Your task to perform on an android device: Go to network settings Image 0: 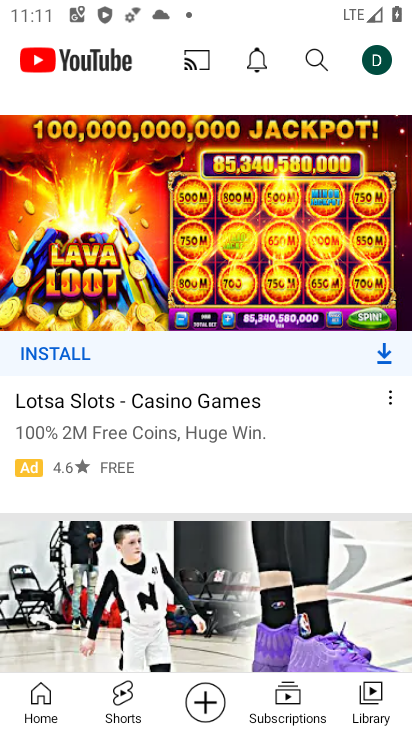
Step 0: press home button
Your task to perform on an android device: Go to network settings Image 1: 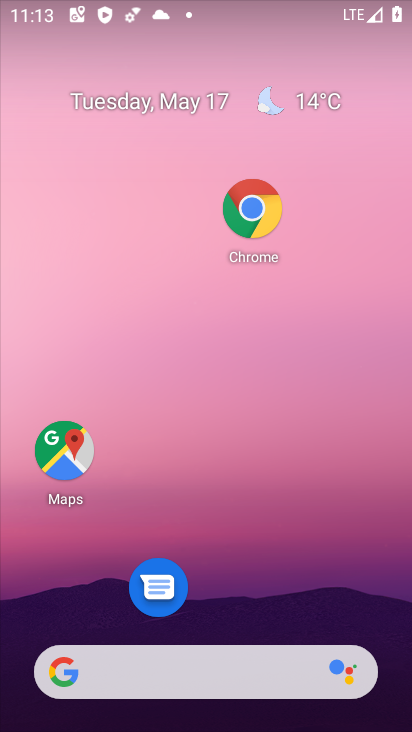
Step 1: drag from (276, 580) to (291, 80)
Your task to perform on an android device: Go to network settings Image 2: 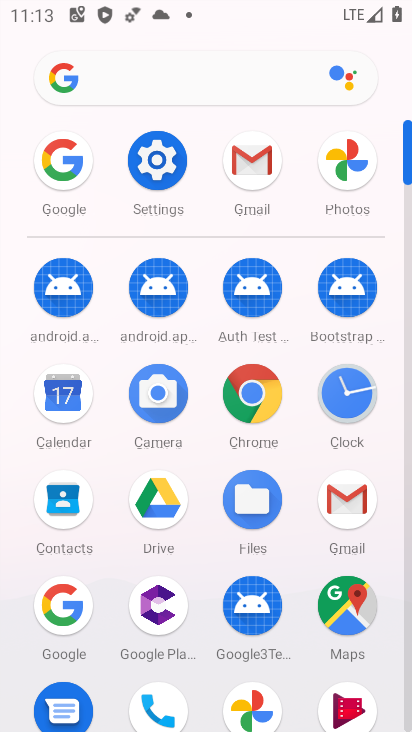
Step 2: click (154, 142)
Your task to perform on an android device: Go to network settings Image 3: 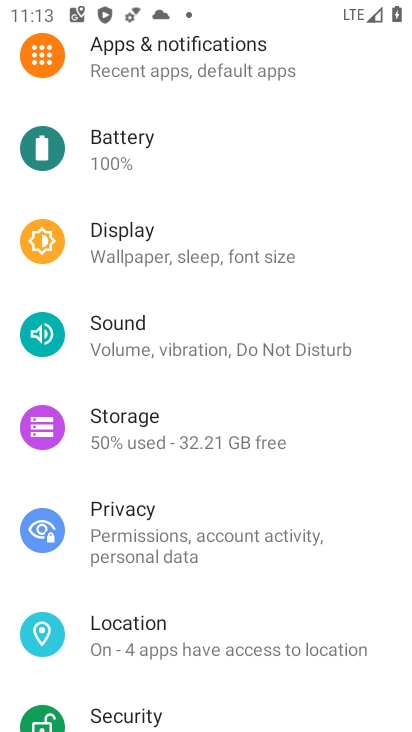
Step 3: drag from (265, 145) to (262, 687)
Your task to perform on an android device: Go to network settings Image 4: 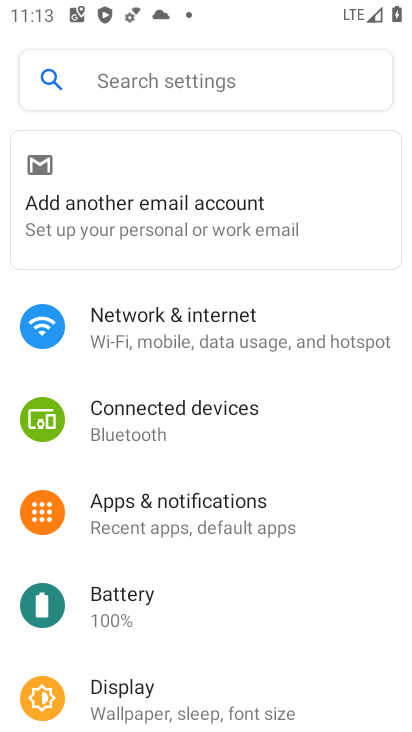
Step 4: click (239, 334)
Your task to perform on an android device: Go to network settings Image 5: 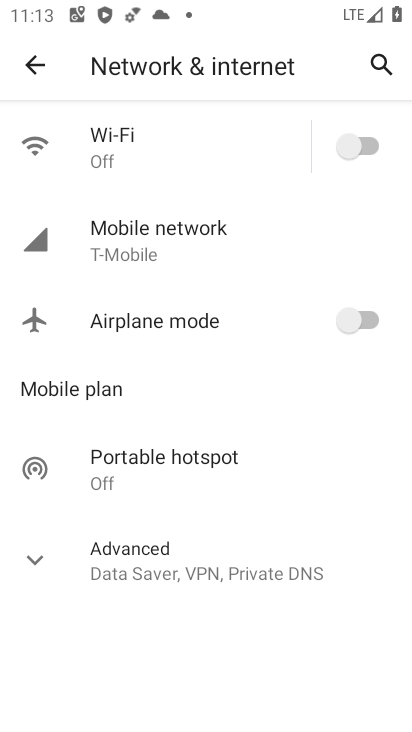
Step 5: task complete